Your task to perform on an android device: Open the calendar app, open the side menu, and click the "Day" option Image 0: 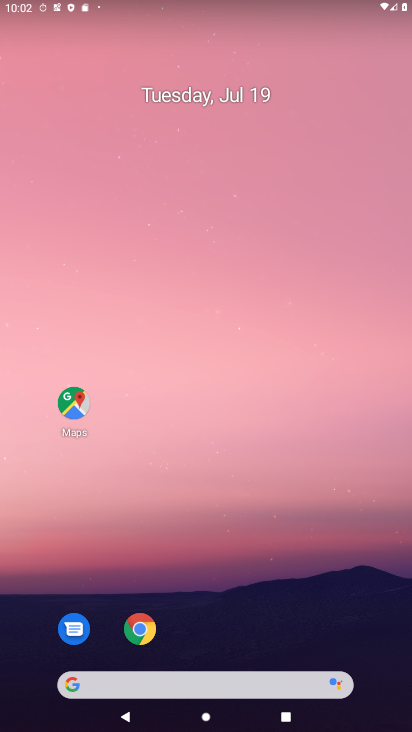
Step 0: drag from (175, 621) to (128, 8)
Your task to perform on an android device: Open the calendar app, open the side menu, and click the "Day" option Image 1: 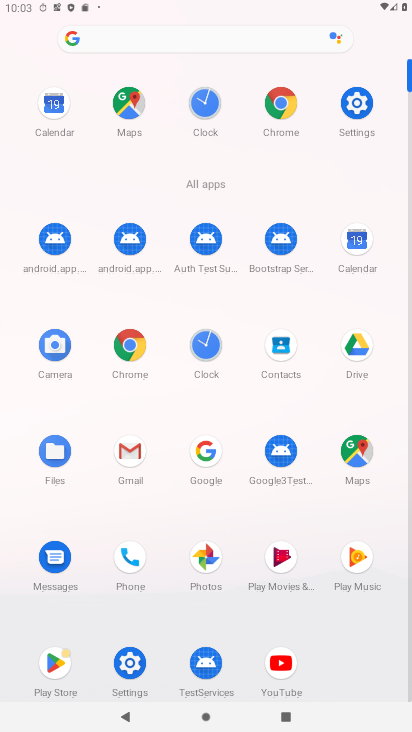
Step 1: click (361, 252)
Your task to perform on an android device: Open the calendar app, open the side menu, and click the "Day" option Image 2: 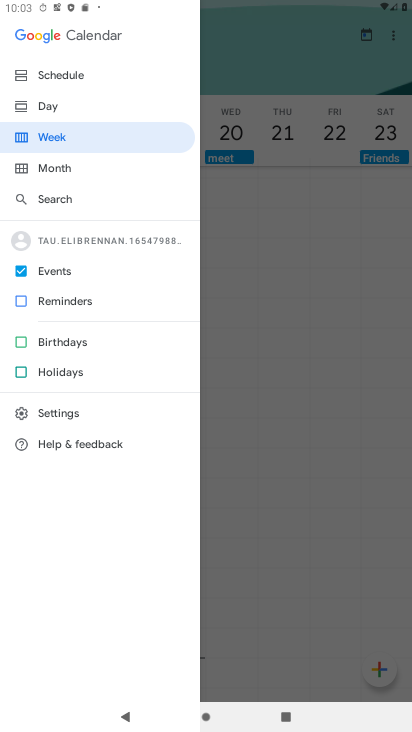
Step 2: click (49, 116)
Your task to perform on an android device: Open the calendar app, open the side menu, and click the "Day" option Image 3: 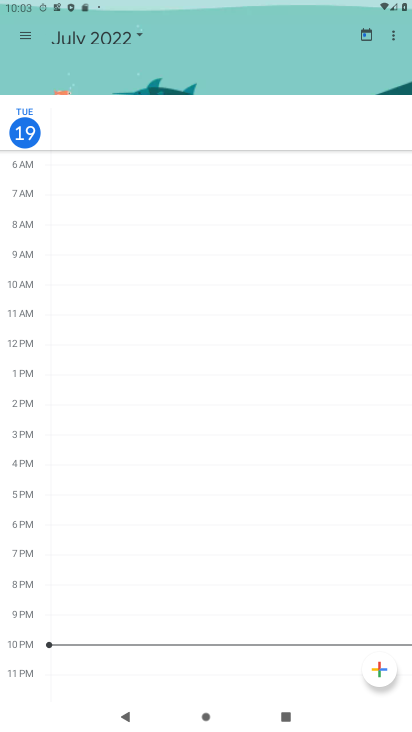
Step 3: task complete